Your task to perform on an android device: read, delete, or share a saved page in the chrome app Image 0: 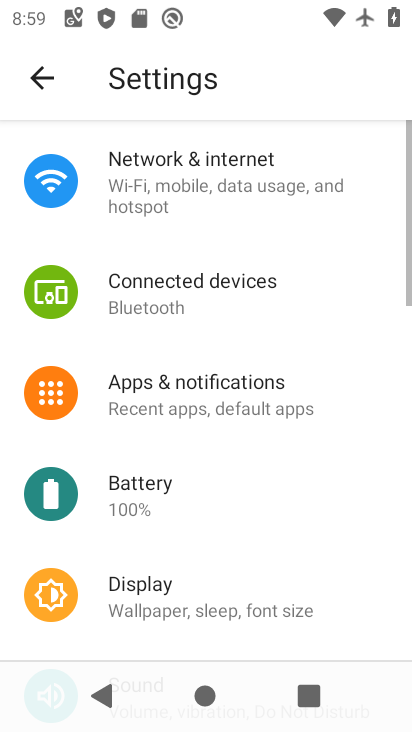
Step 0: press home button
Your task to perform on an android device: read, delete, or share a saved page in the chrome app Image 1: 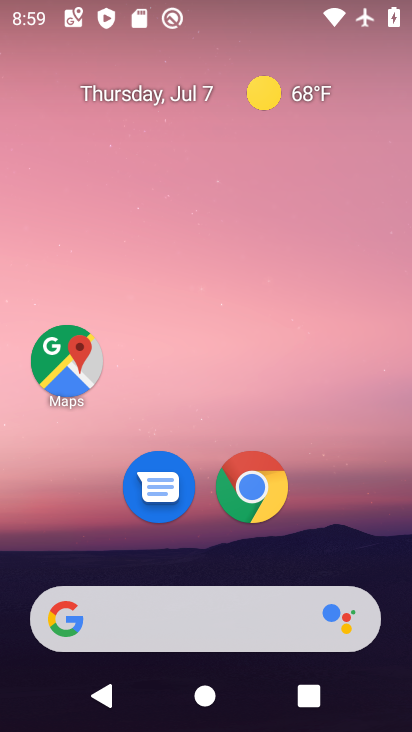
Step 1: drag from (242, 558) to (203, 33)
Your task to perform on an android device: read, delete, or share a saved page in the chrome app Image 2: 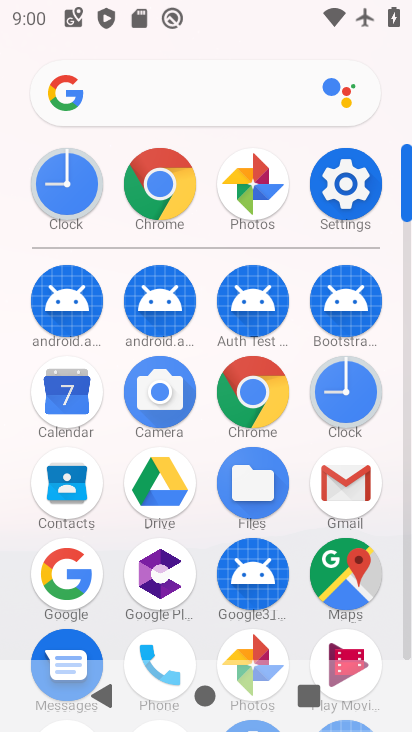
Step 2: click (172, 181)
Your task to perform on an android device: read, delete, or share a saved page in the chrome app Image 3: 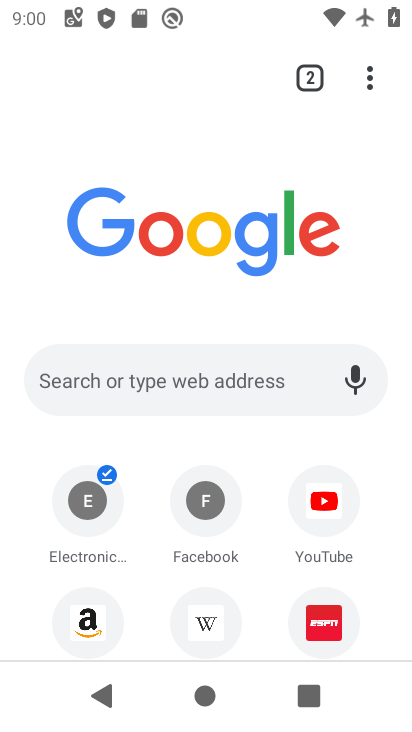
Step 3: click (369, 78)
Your task to perform on an android device: read, delete, or share a saved page in the chrome app Image 4: 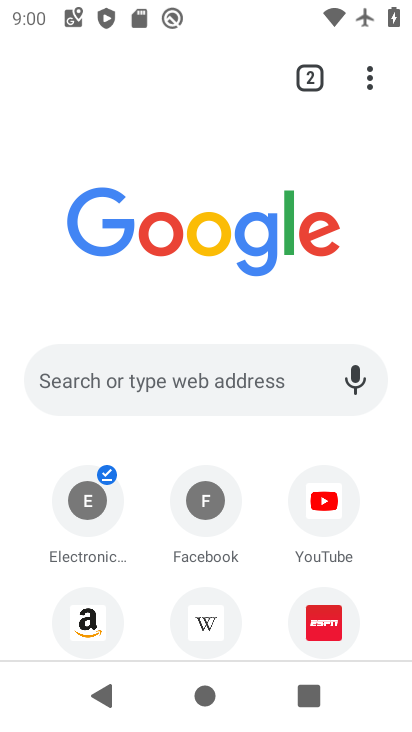
Step 4: task complete